Your task to perform on an android device: Is it going to rain this weekend? Image 0: 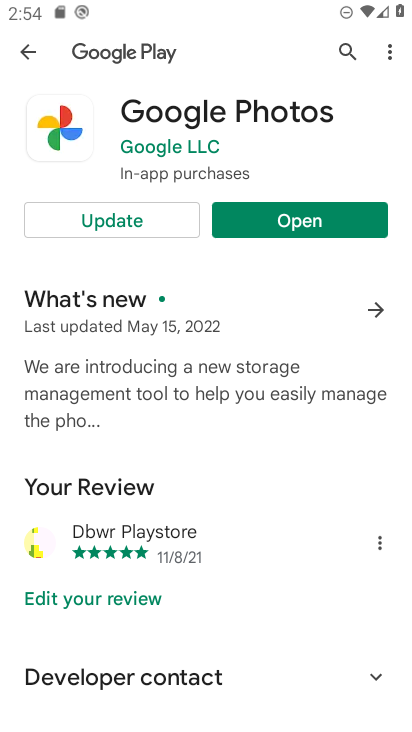
Step 0: press home button
Your task to perform on an android device: Is it going to rain this weekend? Image 1: 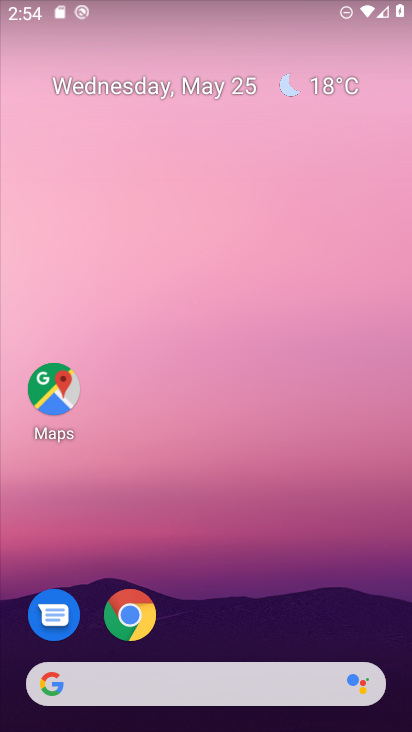
Step 1: click (240, 684)
Your task to perform on an android device: Is it going to rain this weekend? Image 2: 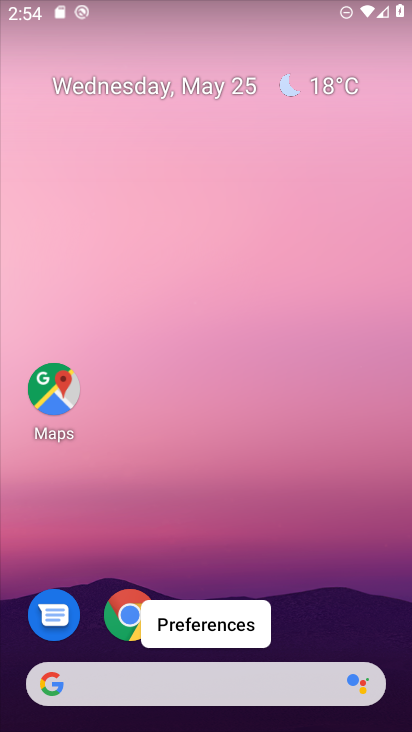
Step 2: click (161, 680)
Your task to perform on an android device: Is it going to rain this weekend? Image 3: 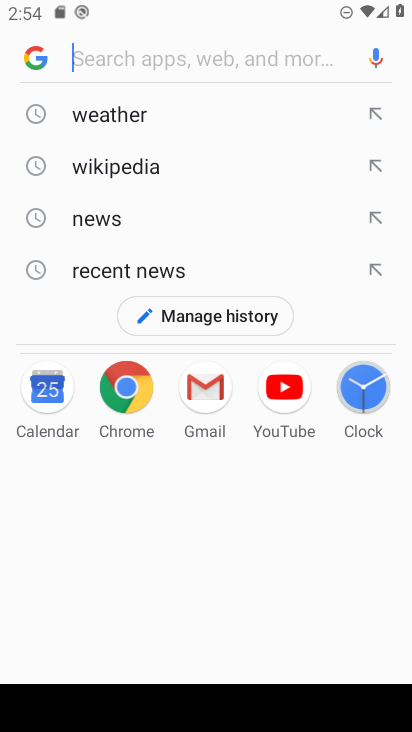
Step 3: click (110, 106)
Your task to perform on an android device: Is it going to rain this weekend? Image 4: 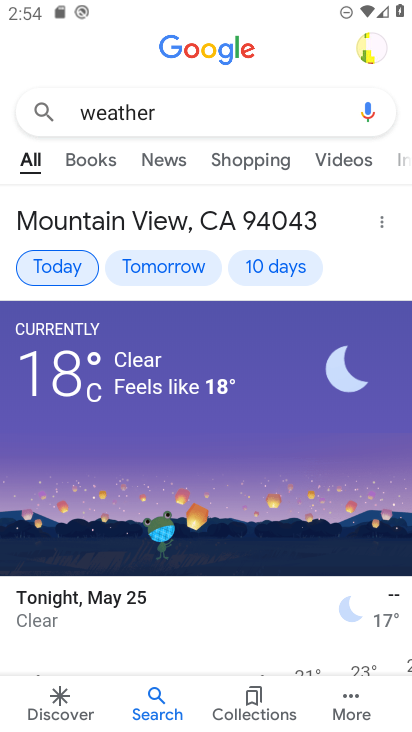
Step 4: click (66, 263)
Your task to perform on an android device: Is it going to rain this weekend? Image 5: 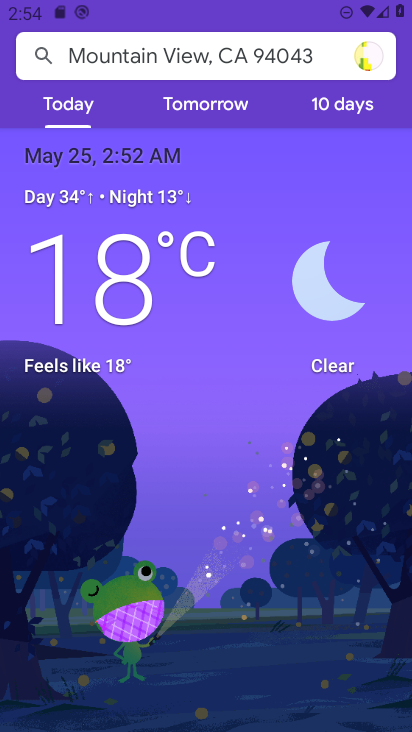
Step 5: click (334, 103)
Your task to perform on an android device: Is it going to rain this weekend? Image 6: 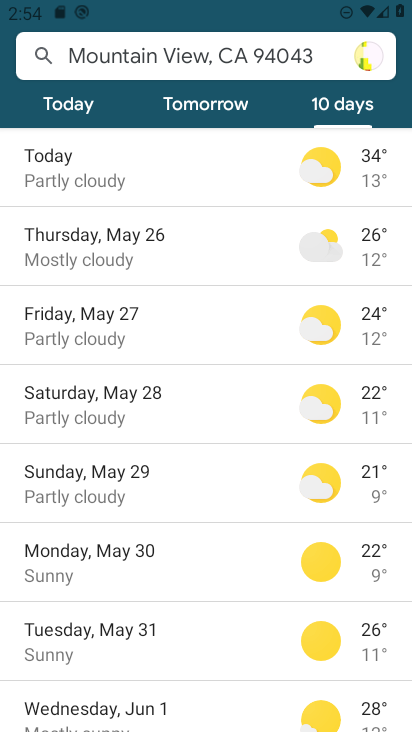
Step 6: click (134, 404)
Your task to perform on an android device: Is it going to rain this weekend? Image 7: 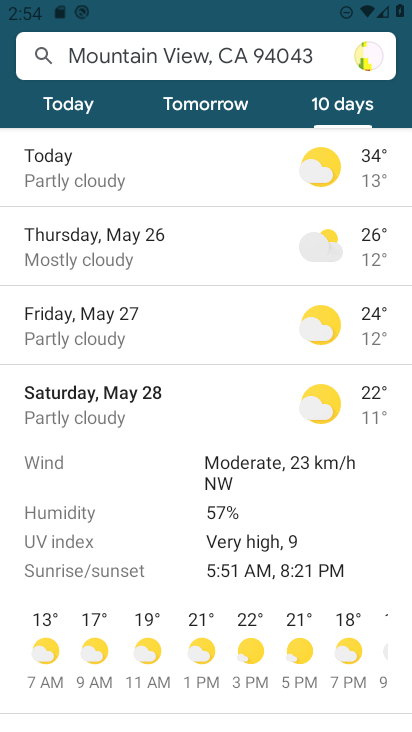
Step 7: task complete